Your task to perform on an android device: Search for Mexican restaurants on Maps Image 0: 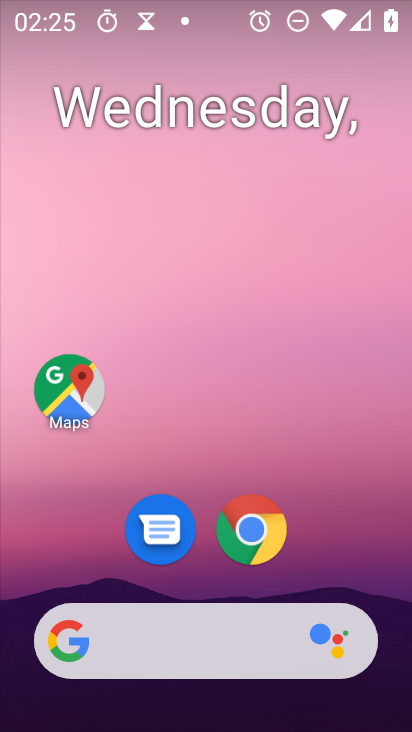
Step 0: drag from (349, 686) to (399, 559)
Your task to perform on an android device: Search for Mexican restaurants on Maps Image 1: 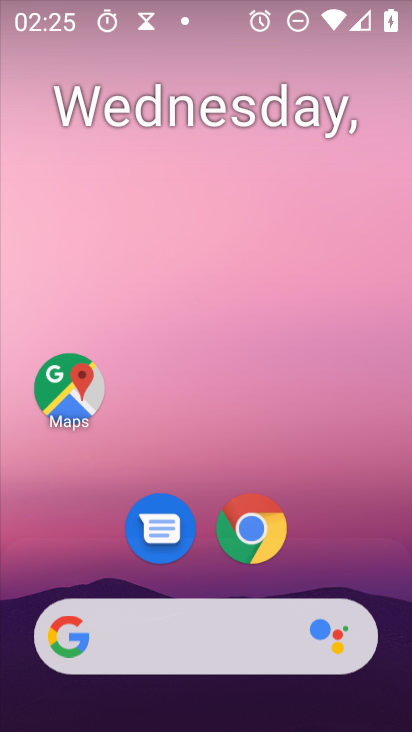
Step 1: click (334, 544)
Your task to perform on an android device: Search for Mexican restaurants on Maps Image 2: 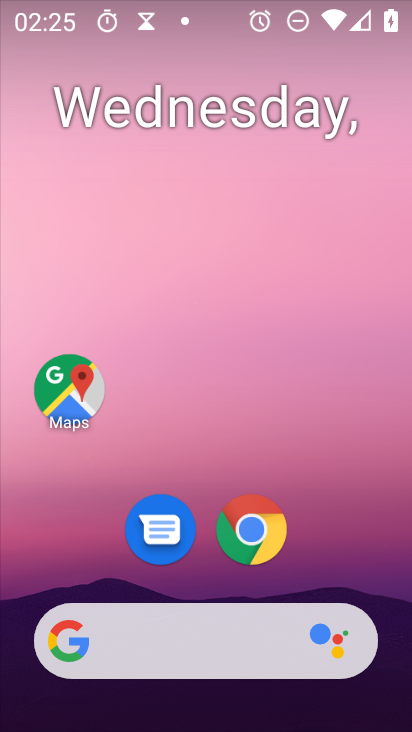
Step 2: drag from (341, 692) to (326, 0)
Your task to perform on an android device: Search for Mexican restaurants on Maps Image 3: 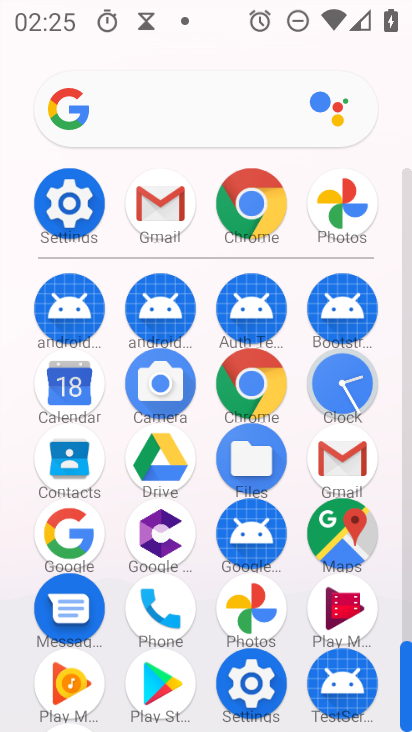
Step 3: click (352, 544)
Your task to perform on an android device: Search for Mexican restaurants on Maps Image 4: 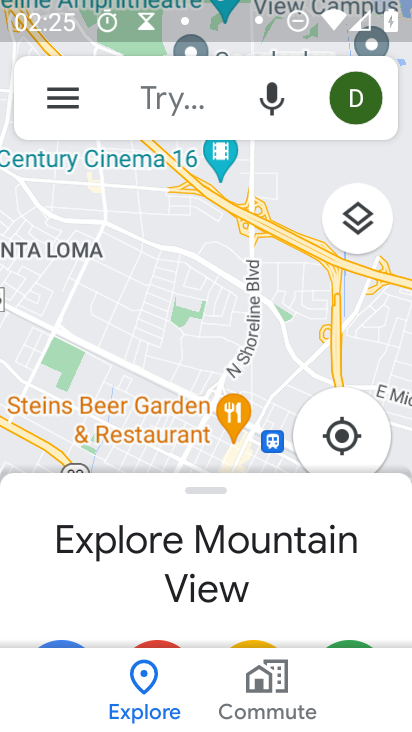
Step 4: click (214, 103)
Your task to perform on an android device: Search for Mexican restaurants on Maps Image 5: 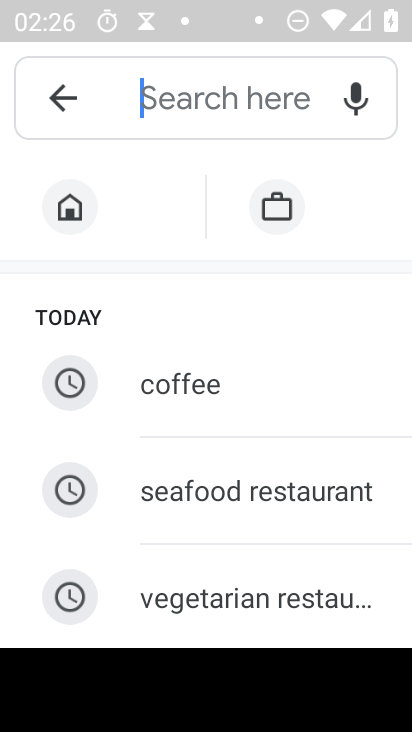
Step 5: type "mexican restaurant"
Your task to perform on an android device: Search for Mexican restaurants on Maps Image 6: 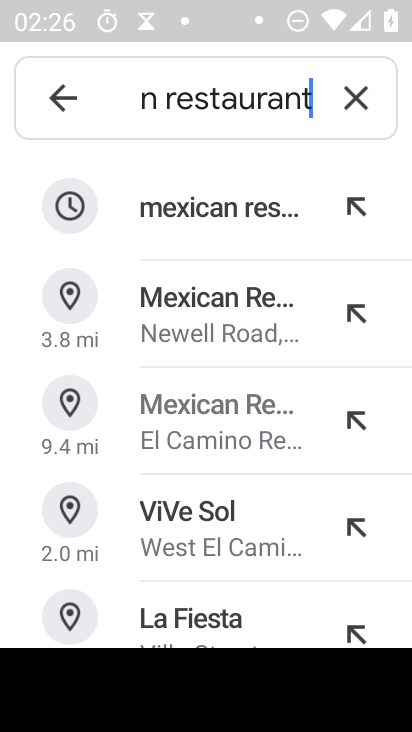
Step 6: click (255, 232)
Your task to perform on an android device: Search for Mexican restaurants on Maps Image 7: 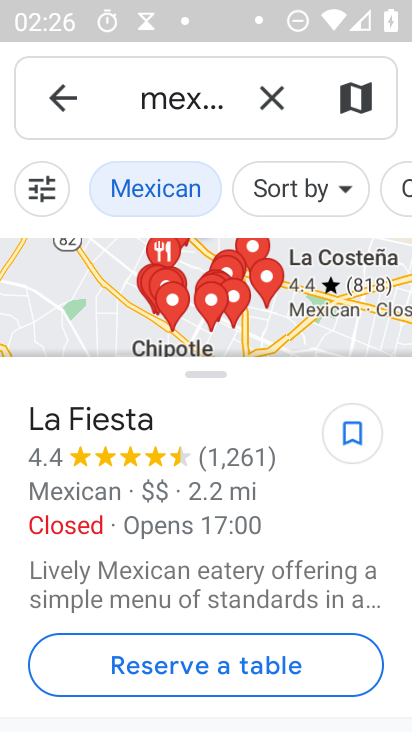
Step 7: task complete